Your task to perform on an android device: toggle sleep mode Image 0: 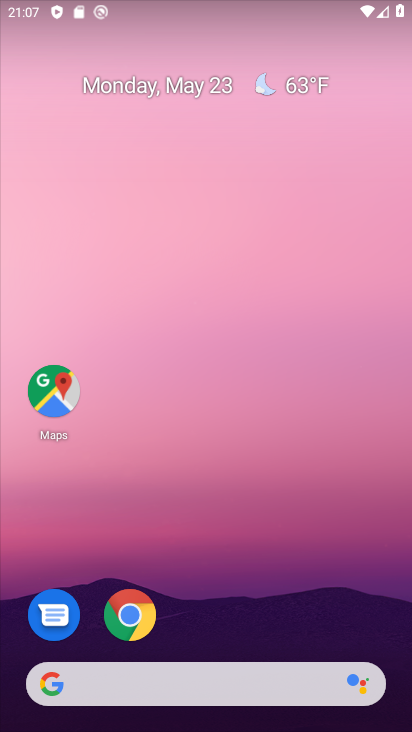
Step 0: drag from (215, 582) to (282, 95)
Your task to perform on an android device: toggle sleep mode Image 1: 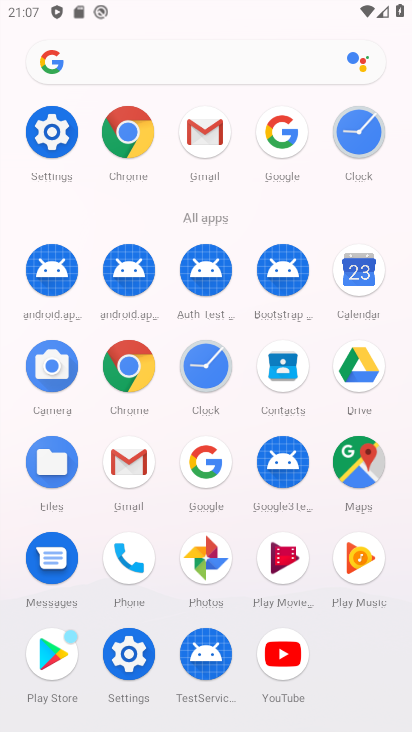
Step 1: click (61, 126)
Your task to perform on an android device: toggle sleep mode Image 2: 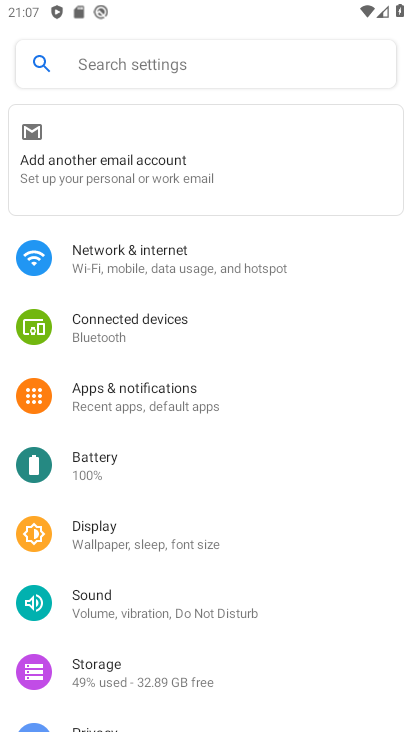
Step 2: click (136, 530)
Your task to perform on an android device: toggle sleep mode Image 3: 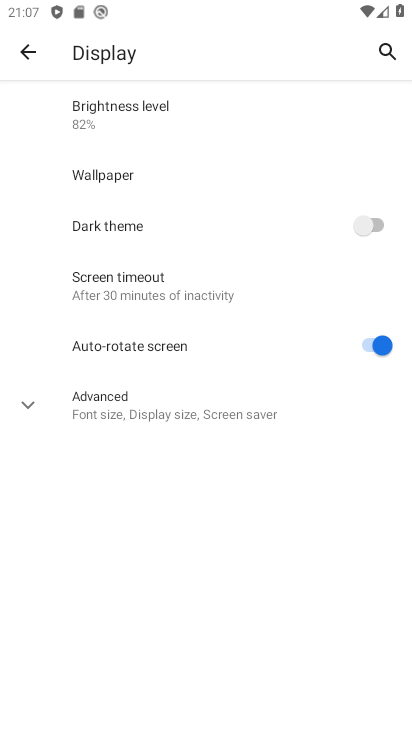
Step 3: click (131, 295)
Your task to perform on an android device: toggle sleep mode Image 4: 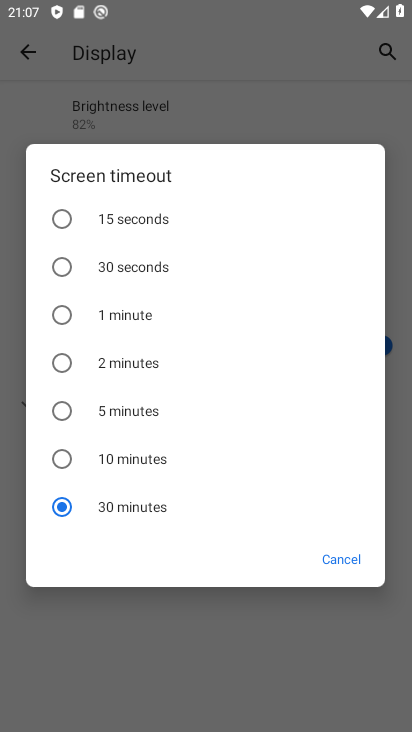
Step 4: click (21, 265)
Your task to perform on an android device: toggle sleep mode Image 5: 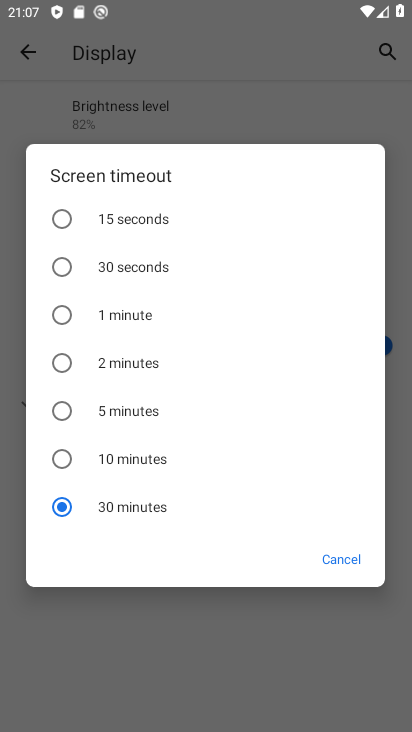
Step 5: click (67, 271)
Your task to perform on an android device: toggle sleep mode Image 6: 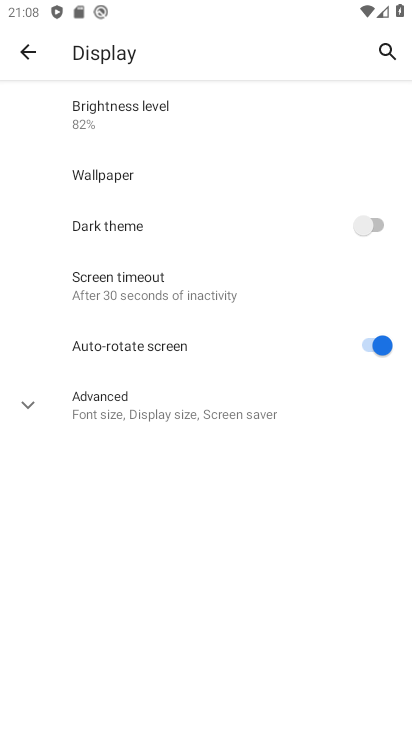
Step 6: task complete